Your task to perform on an android device: turn off priority inbox in the gmail app Image 0: 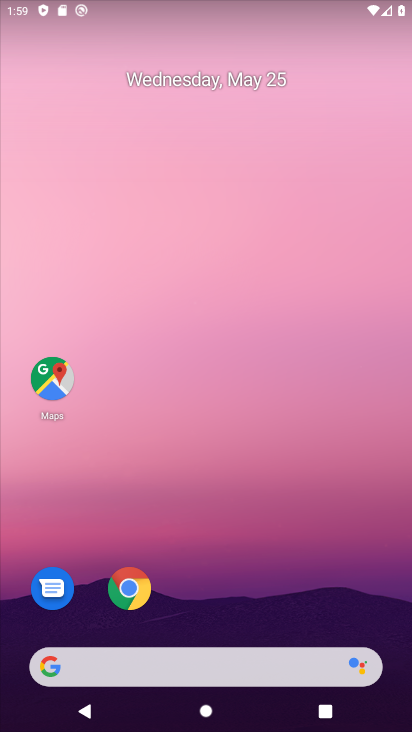
Step 0: drag from (228, 475) to (188, 0)
Your task to perform on an android device: turn off priority inbox in the gmail app Image 1: 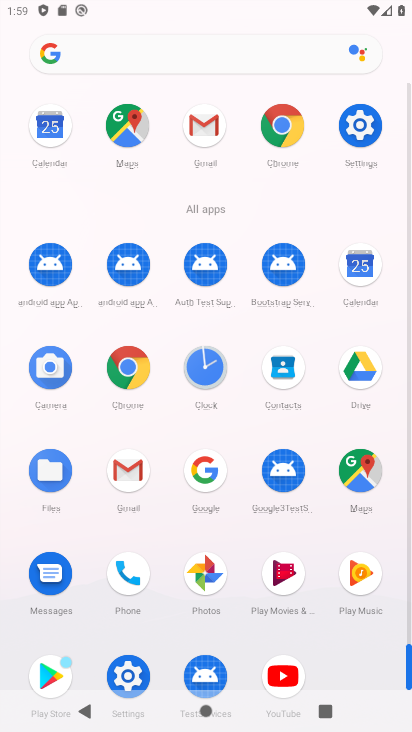
Step 1: drag from (12, 580) to (10, 387)
Your task to perform on an android device: turn off priority inbox in the gmail app Image 2: 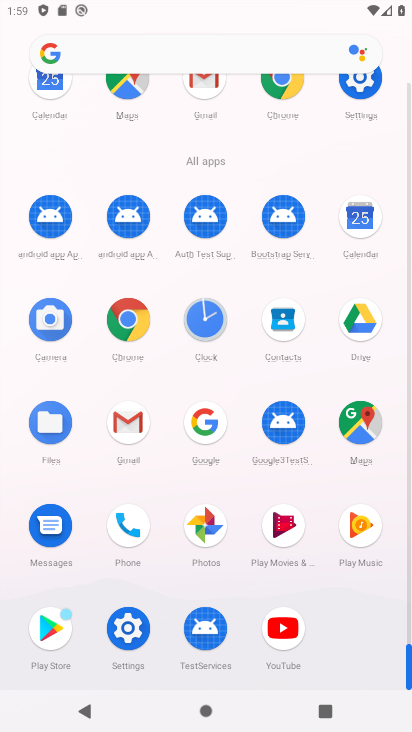
Step 2: click (127, 420)
Your task to perform on an android device: turn off priority inbox in the gmail app Image 3: 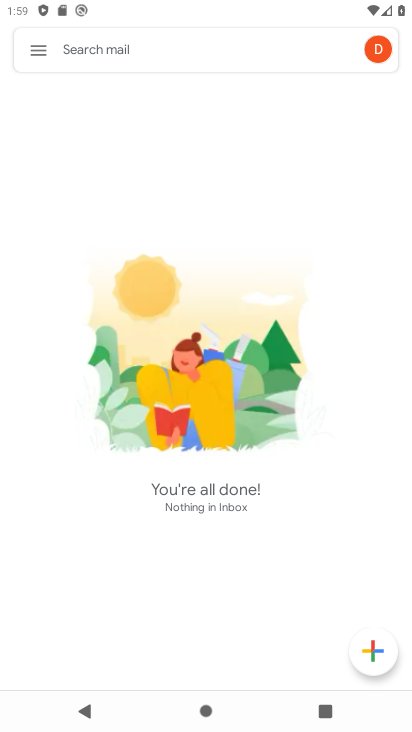
Step 3: click (30, 52)
Your task to perform on an android device: turn off priority inbox in the gmail app Image 4: 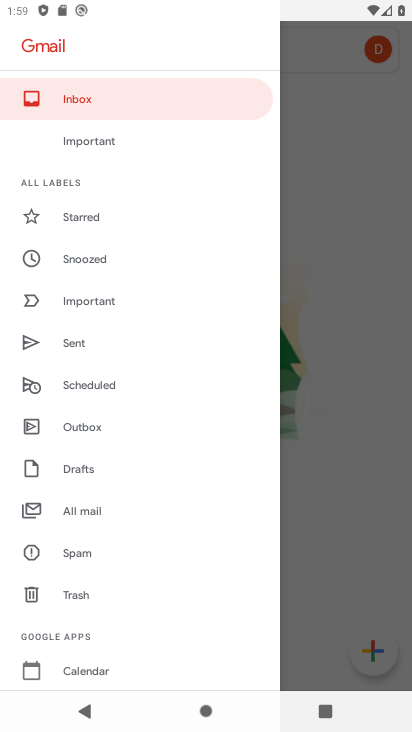
Step 4: drag from (134, 556) to (168, 183)
Your task to perform on an android device: turn off priority inbox in the gmail app Image 5: 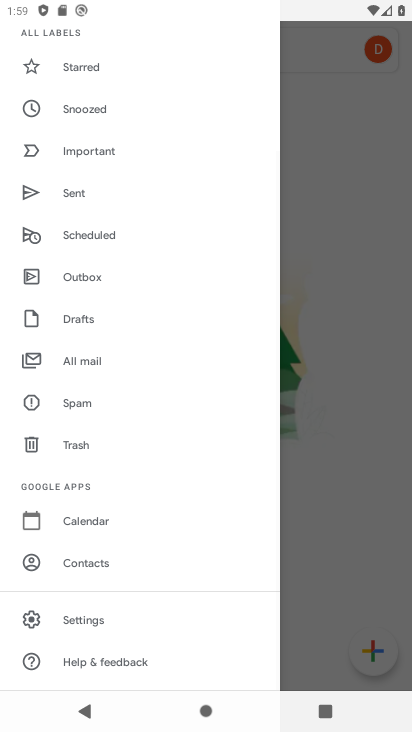
Step 5: click (99, 619)
Your task to perform on an android device: turn off priority inbox in the gmail app Image 6: 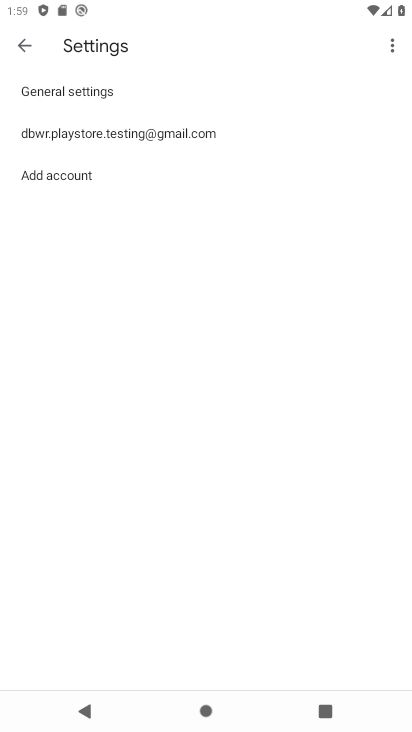
Step 6: click (186, 140)
Your task to perform on an android device: turn off priority inbox in the gmail app Image 7: 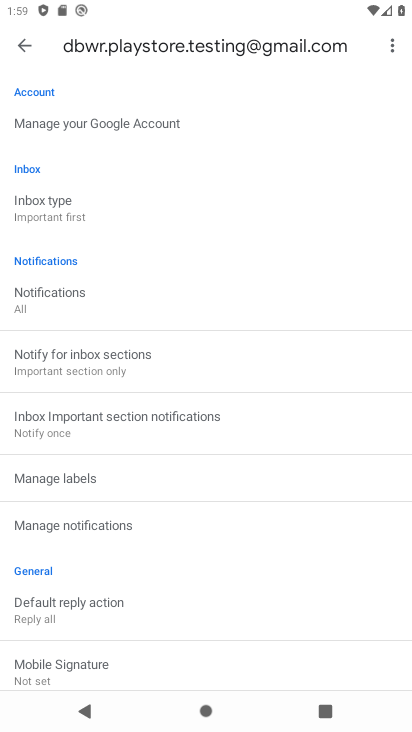
Step 7: click (90, 210)
Your task to perform on an android device: turn off priority inbox in the gmail app Image 8: 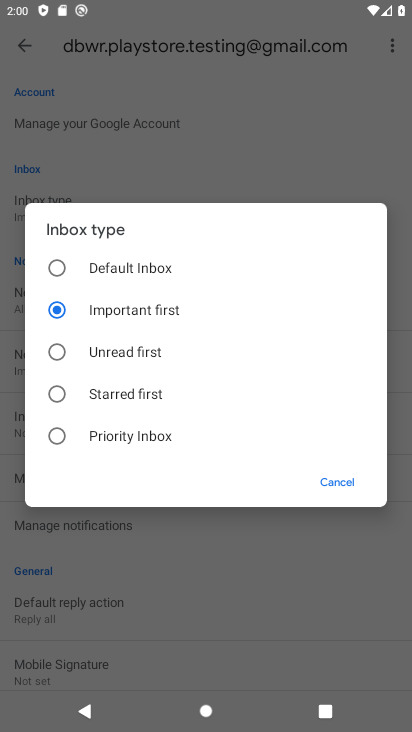
Step 8: click (100, 273)
Your task to perform on an android device: turn off priority inbox in the gmail app Image 9: 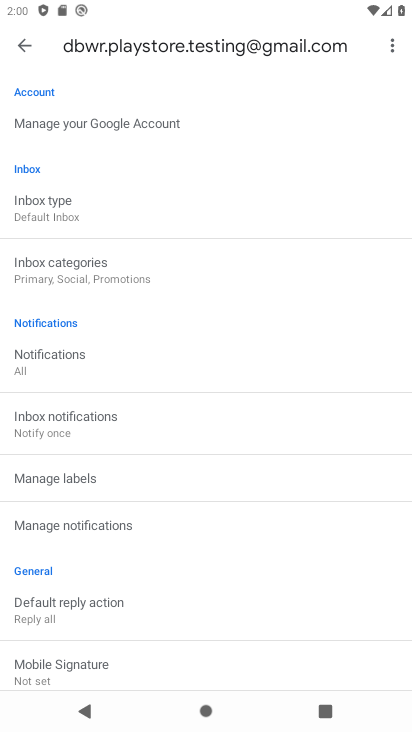
Step 9: task complete